Your task to perform on an android device: Open wifi settings Image 0: 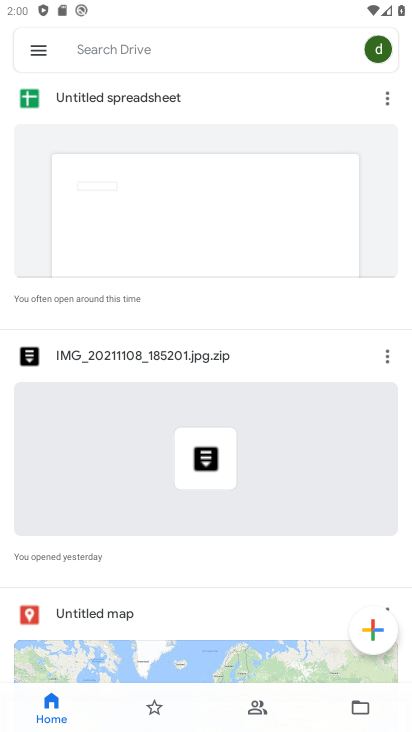
Step 0: press home button
Your task to perform on an android device: Open wifi settings Image 1: 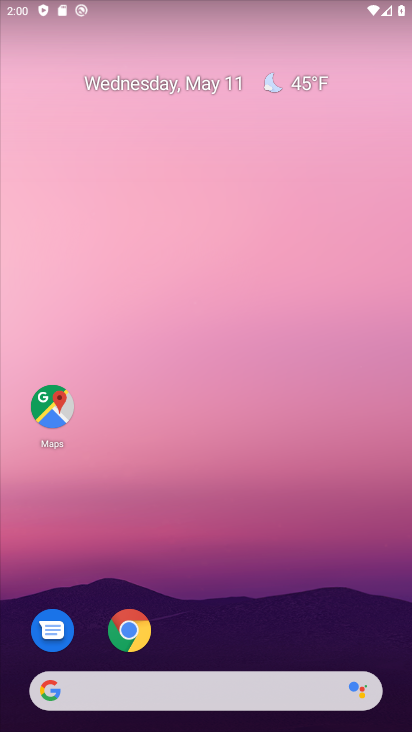
Step 1: drag from (237, 731) to (216, 399)
Your task to perform on an android device: Open wifi settings Image 2: 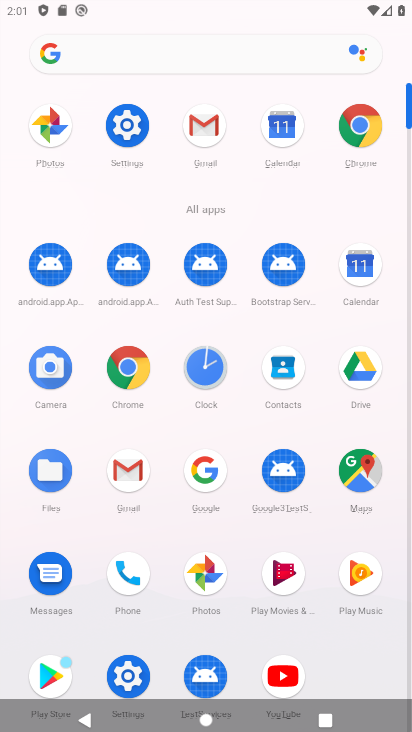
Step 2: click (122, 121)
Your task to perform on an android device: Open wifi settings Image 3: 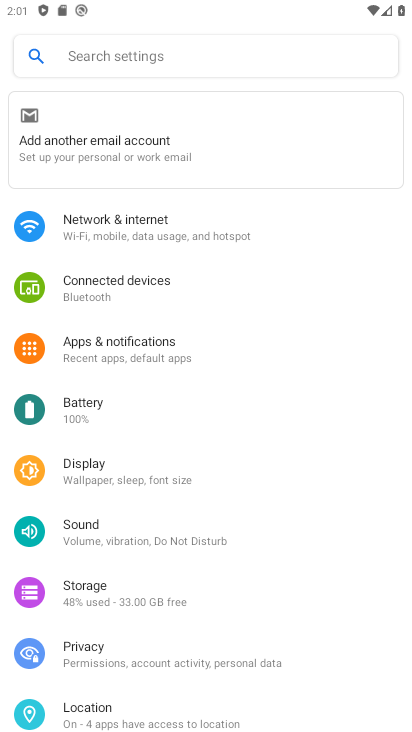
Step 3: click (110, 231)
Your task to perform on an android device: Open wifi settings Image 4: 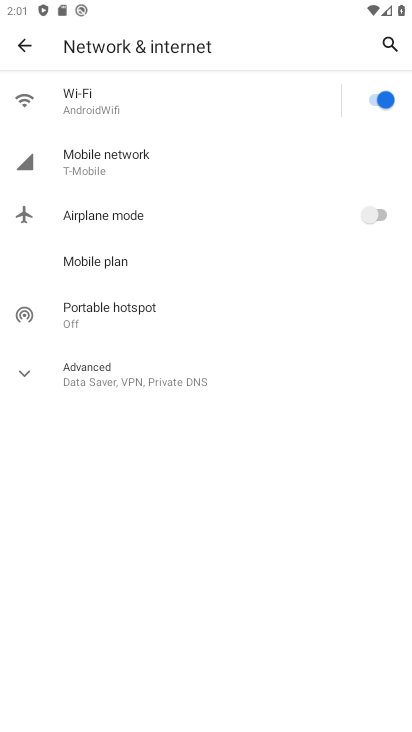
Step 4: click (91, 107)
Your task to perform on an android device: Open wifi settings Image 5: 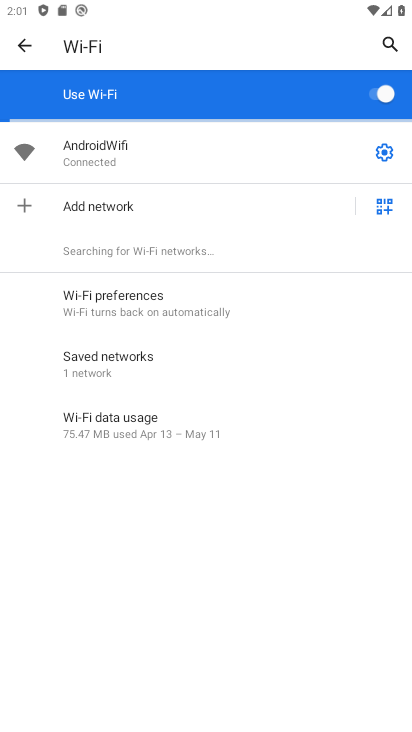
Step 5: task complete